Your task to perform on an android device: Open the map Image 0: 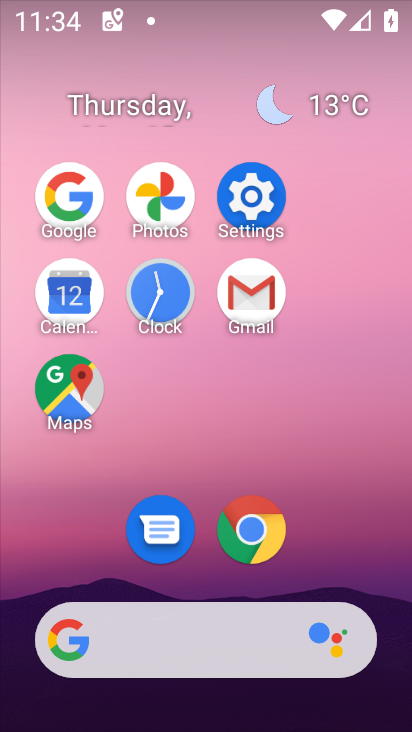
Step 0: click (88, 391)
Your task to perform on an android device: Open the map Image 1: 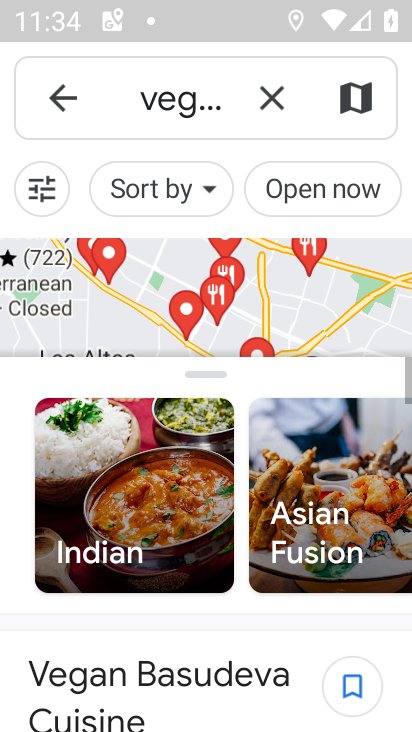
Step 1: task complete